Your task to perform on an android device: What's the weather? Image 0: 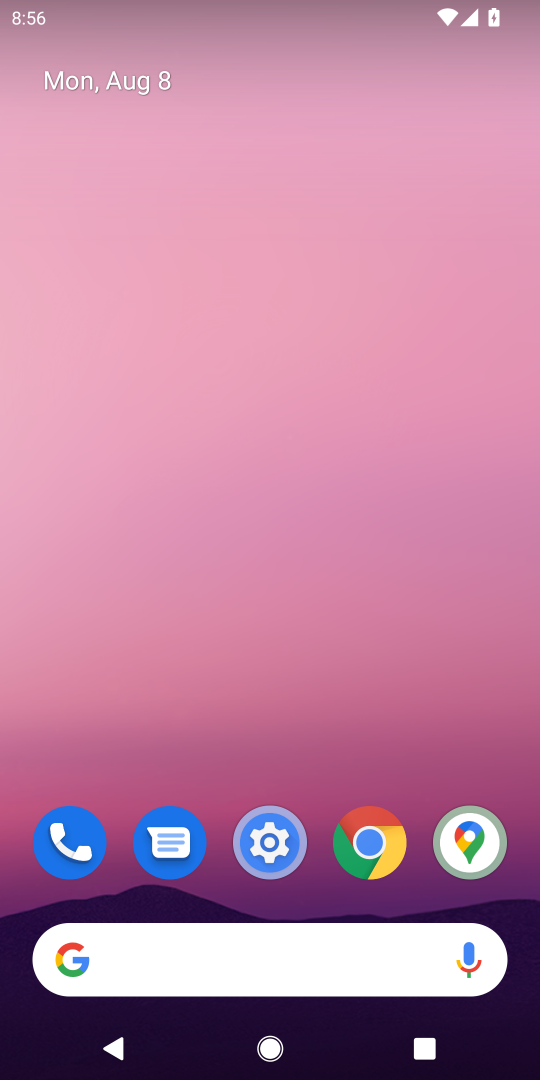
Step 0: click (361, 934)
Your task to perform on an android device: What's the weather? Image 1: 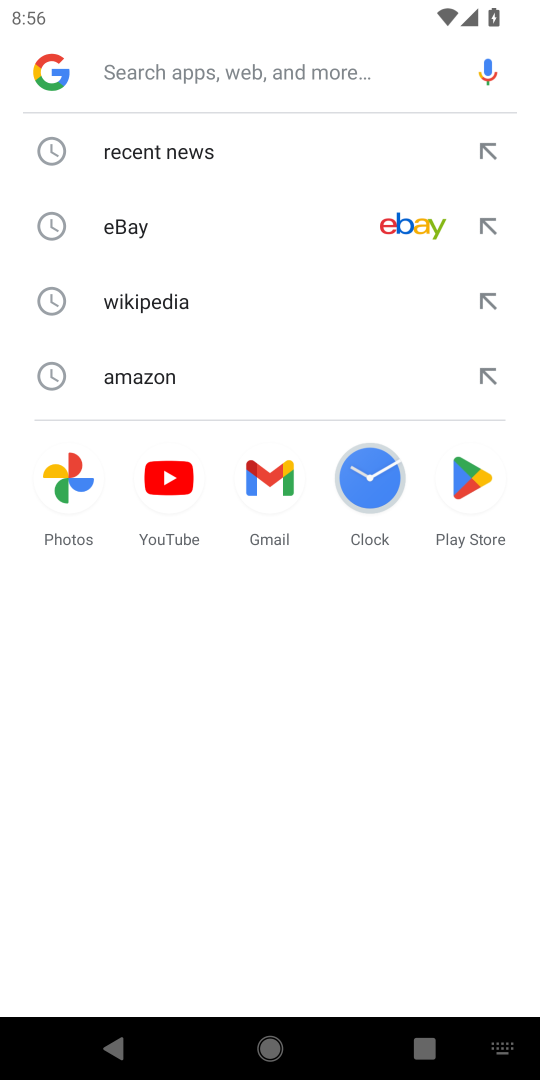
Step 1: type "what's the weather "
Your task to perform on an android device: What's the weather? Image 2: 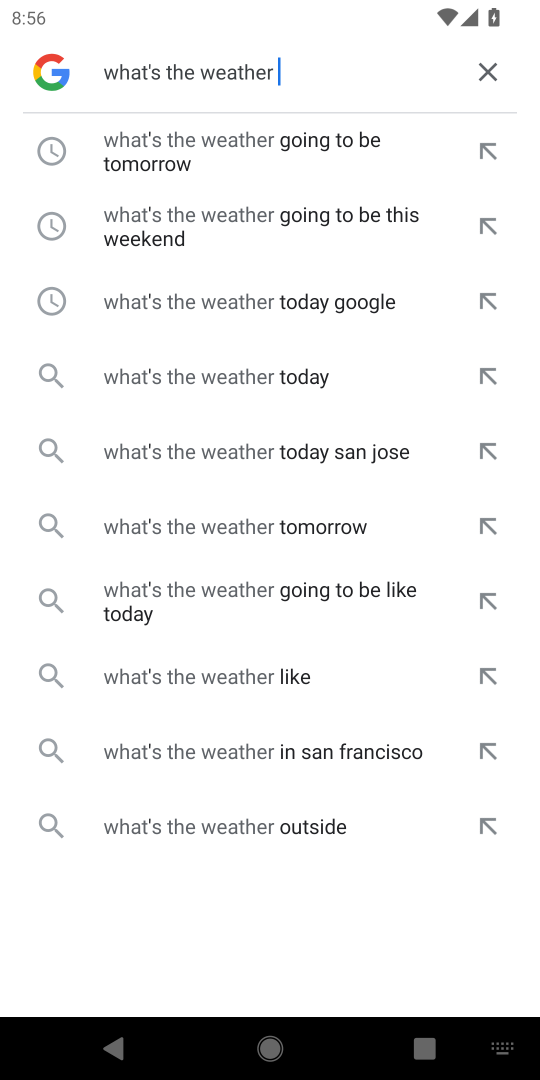
Step 2: click (241, 372)
Your task to perform on an android device: What's the weather? Image 3: 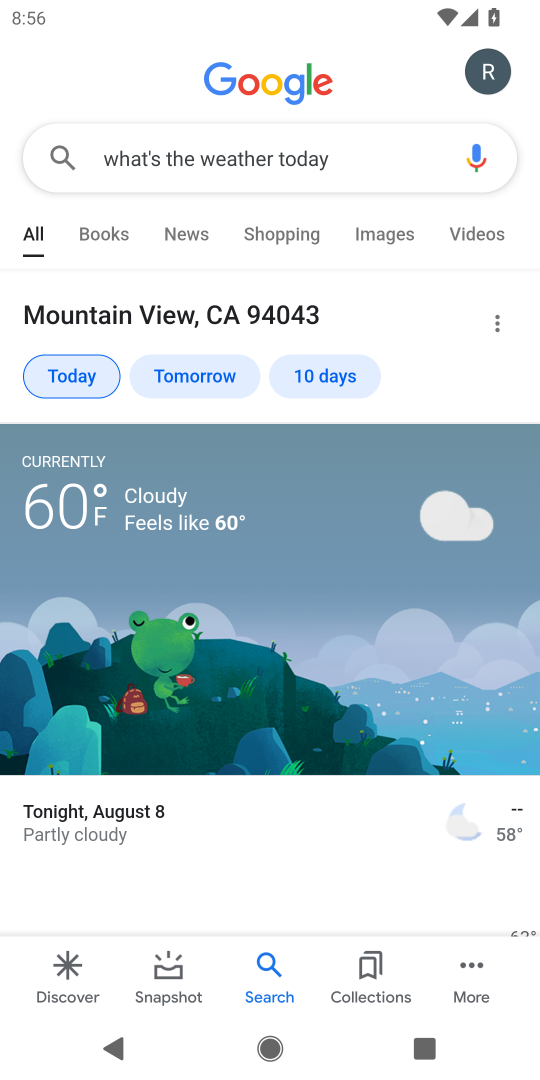
Step 3: task complete